Your task to perform on an android device: toggle sleep mode Image 0: 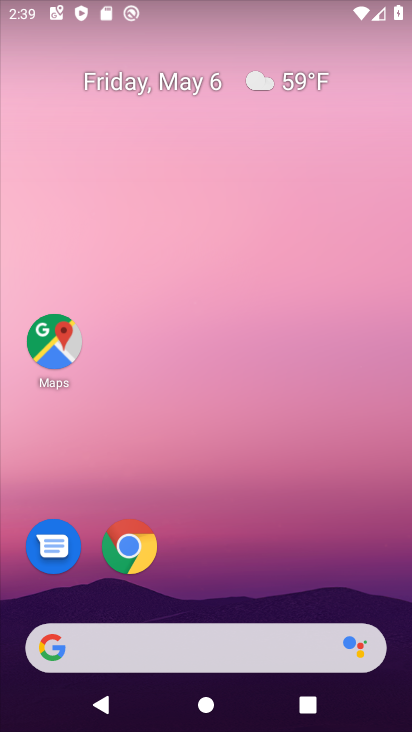
Step 0: drag from (274, 453) to (259, 78)
Your task to perform on an android device: toggle sleep mode Image 1: 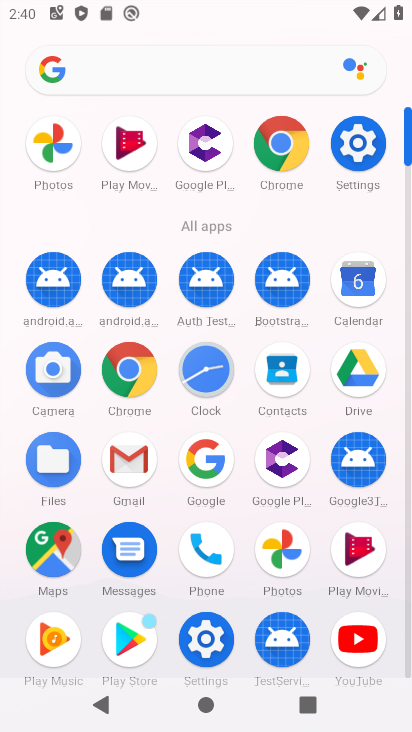
Step 1: click (360, 147)
Your task to perform on an android device: toggle sleep mode Image 2: 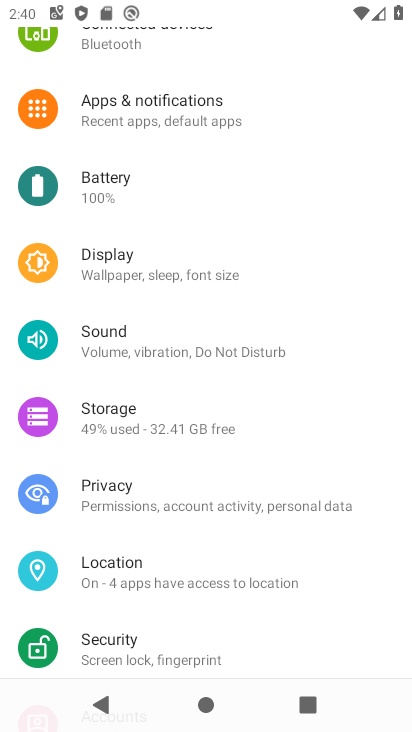
Step 2: click (186, 272)
Your task to perform on an android device: toggle sleep mode Image 3: 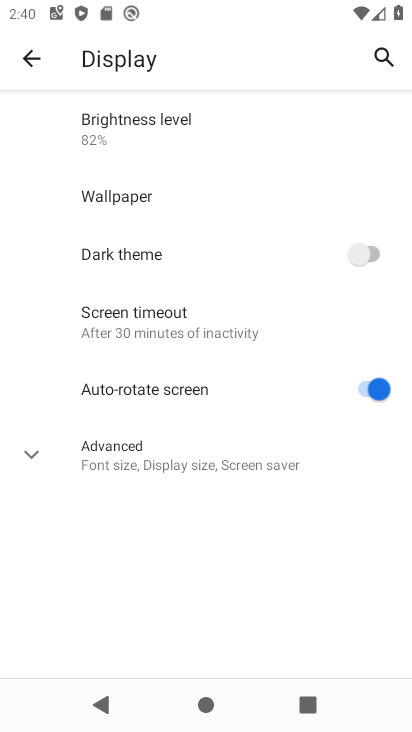
Step 3: click (207, 455)
Your task to perform on an android device: toggle sleep mode Image 4: 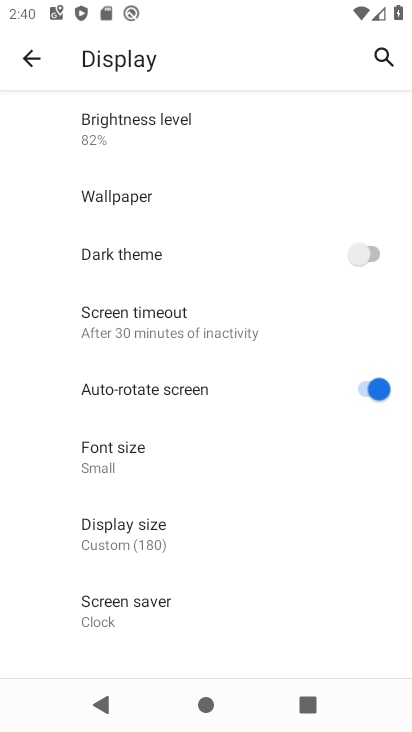
Step 4: task complete